Your task to perform on an android device: Search for desk lamps on article.com Image 0: 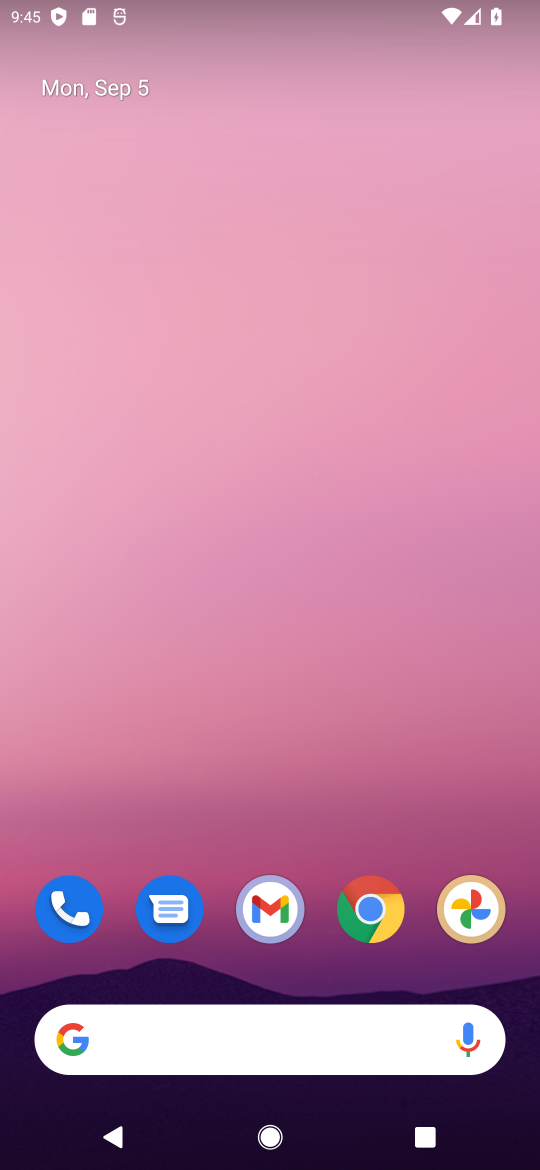
Step 0: click (272, 904)
Your task to perform on an android device: Search for desk lamps on article.com Image 1: 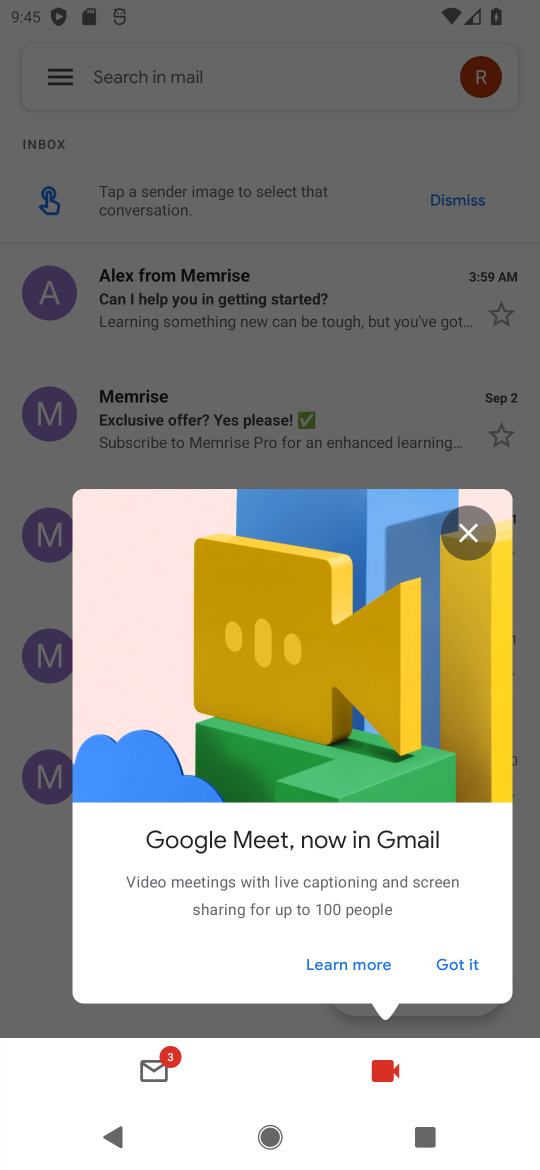
Step 1: click (487, 969)
Your task to perform on an android device: Search for desk lamps on article.com Image 2: 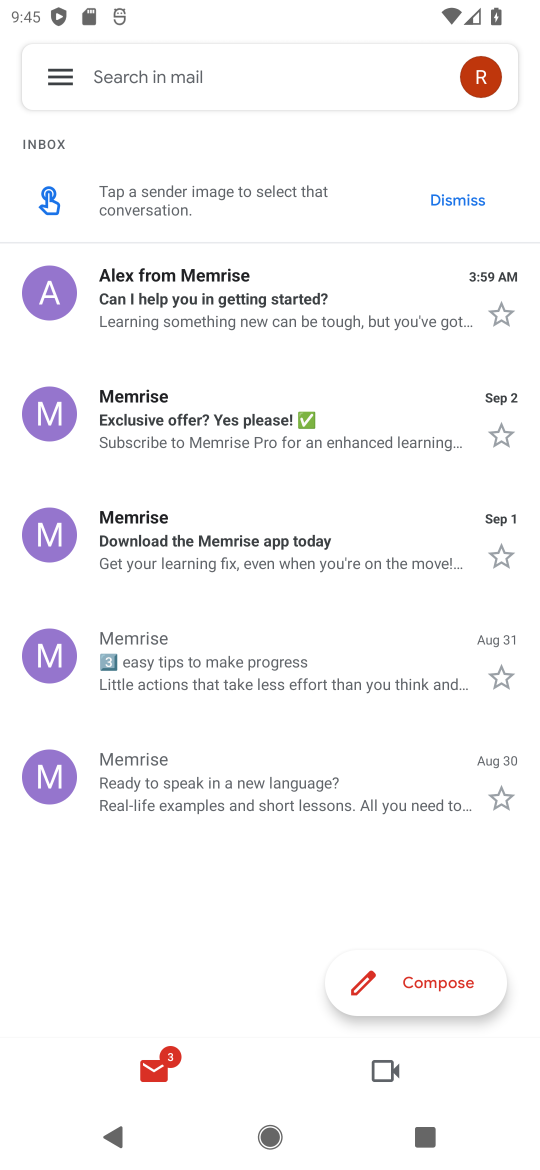
Step 2: task complete